Your task to perform on an android device: View the shopping cart on ebay.com. Search for razer kraken on ebay.com, select the first entry, add it to the cart, then select checkout. Image 0: 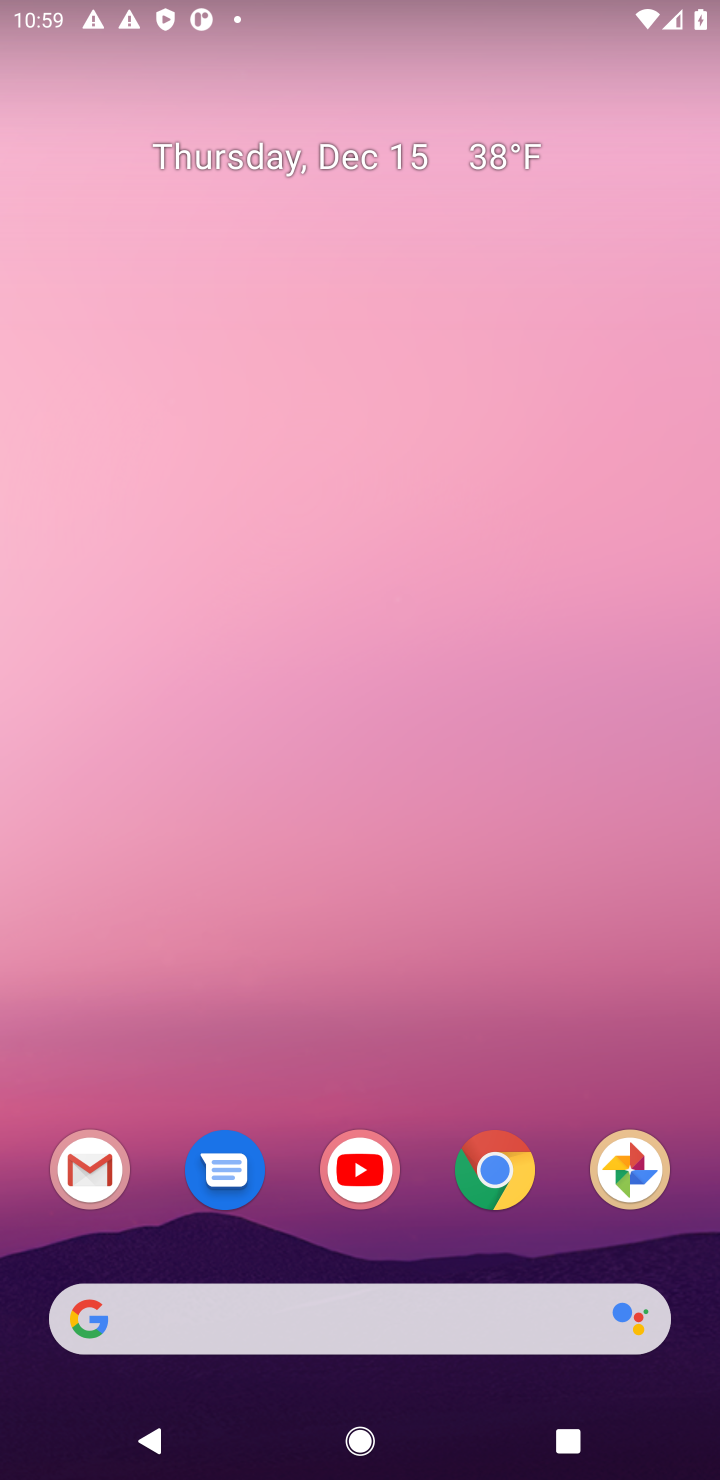
Step 0: click (494, 1170)
Your task to perform on an android device: View the shopping cart on ebay.com. Search for razer kraken on ebay.com, select the first entry, add it to the cart, then select checkout. Image 1: 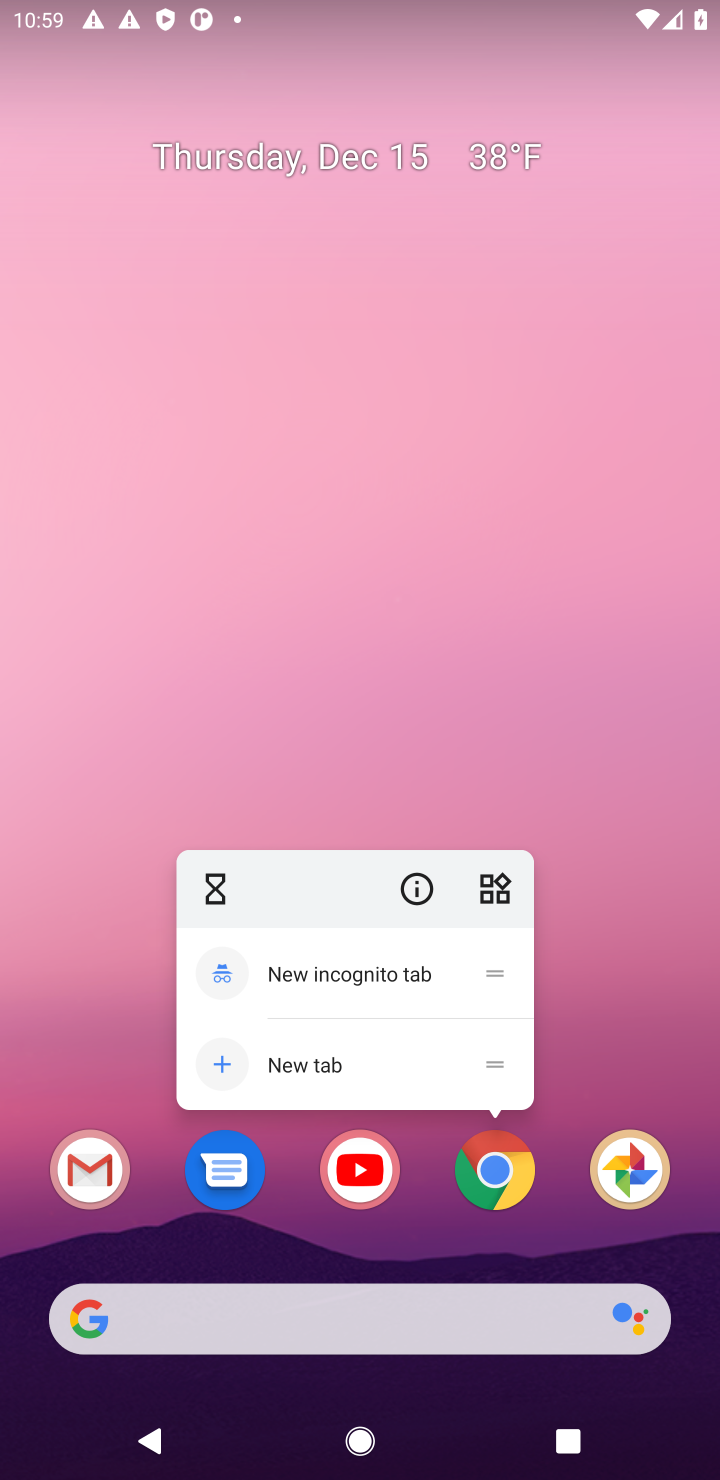
Step 1: click (492, 1176)
Your task to perform on an android device: View the shopping cart on ebay.com. Search for razer kraken on ebay.com, select the first entry, add it to the cart, then select checkout. Image 2: 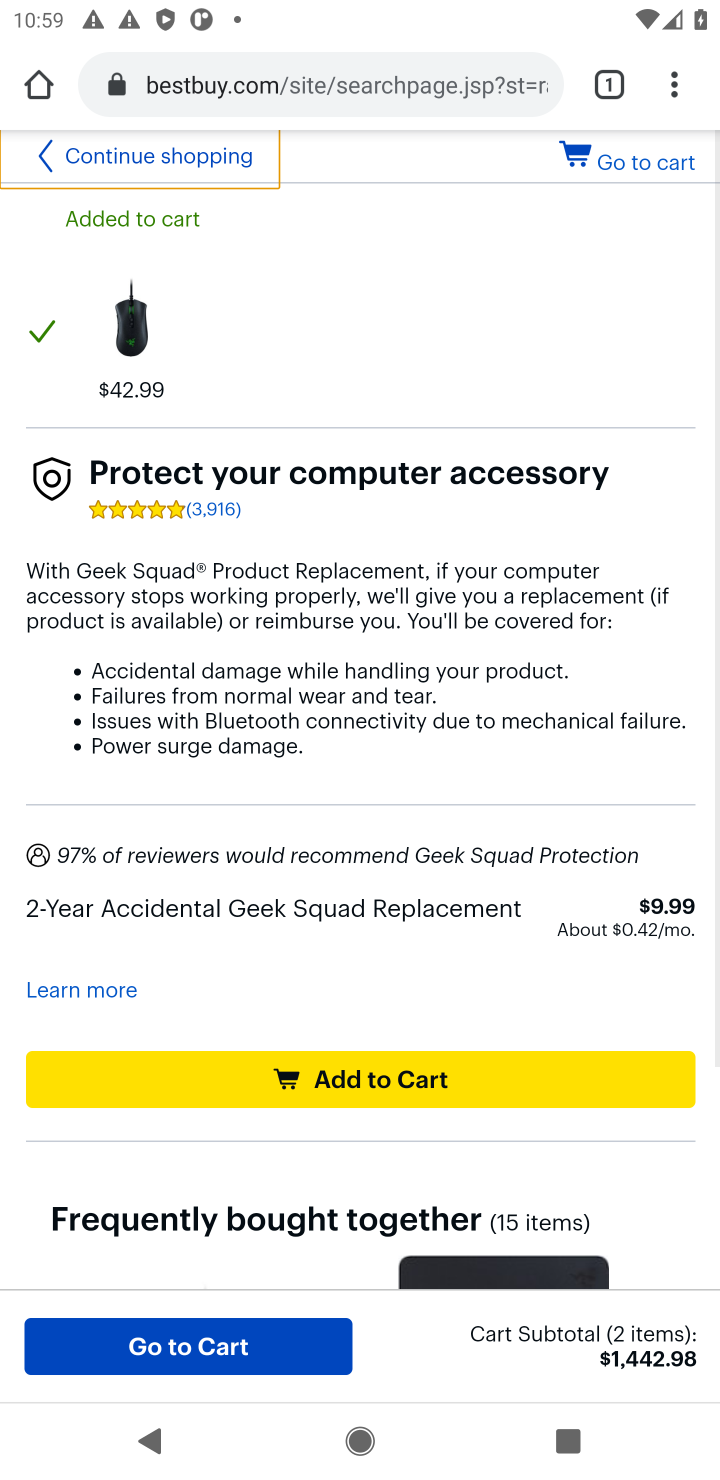
Step 2: click (293, 90)
Your task to perform on an android device: View the shopping cart on ebay.com. Search for razer kraken on ebay.com, select the first entry, add it to the cart, then select checkout. Image 3: 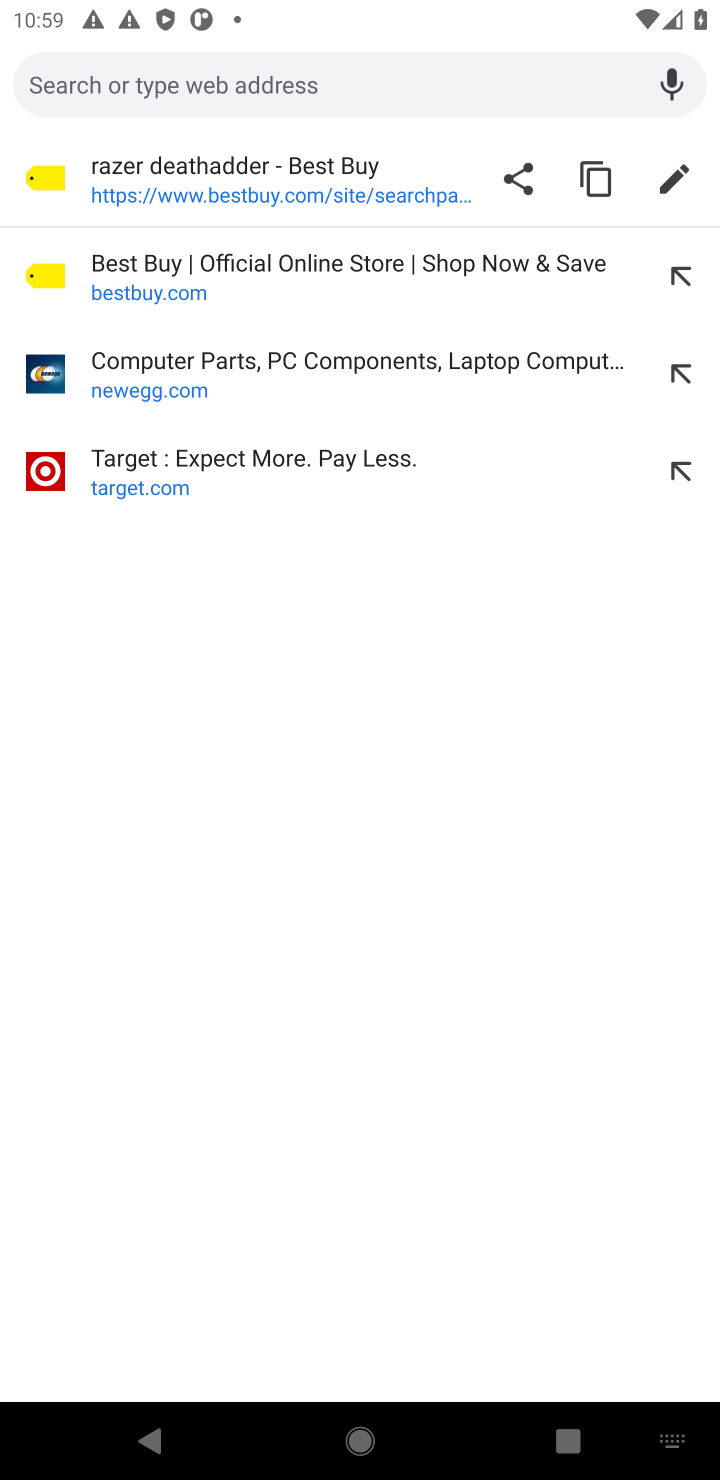
Step 3: type "ebay.com"
Your task to perform on an android device: View the shopping cart on ebay.com. Search for razer kraken on ebay.com, select the first entry, add it to the cart, then select checkout. Image 4: 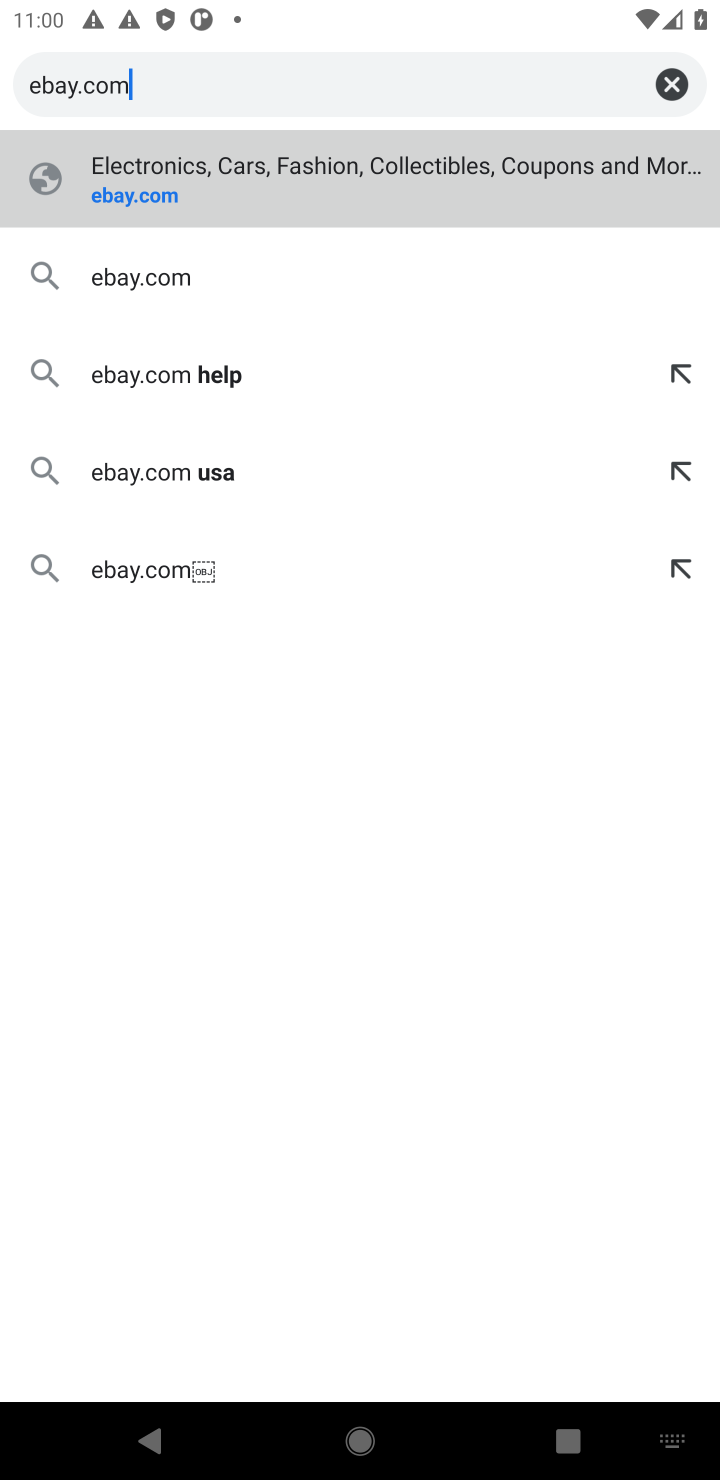
Step 4: click (133, 196)
Your task to perform on an android device: View the shopping cart on ebay.com. Search for razer kraken on ebay.com, select the first entry, add it to the cart, then select checkout. Image 5: 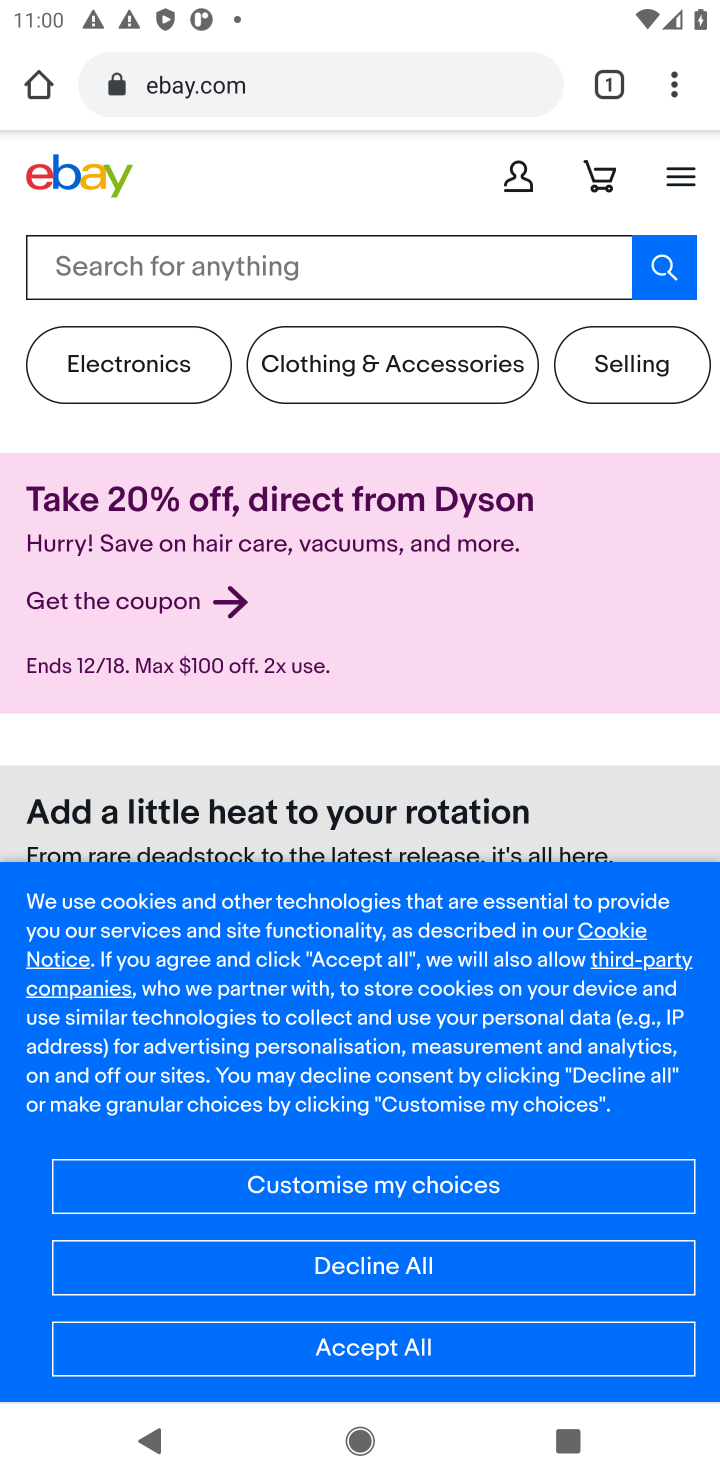
Step 5: click (596, 177)
Your task to perform on an android device: View the shopping cart on ebay.com. Search for razer kraken on ebay.com, select the first entry, add it to the cart, then select checkout. Image 6: 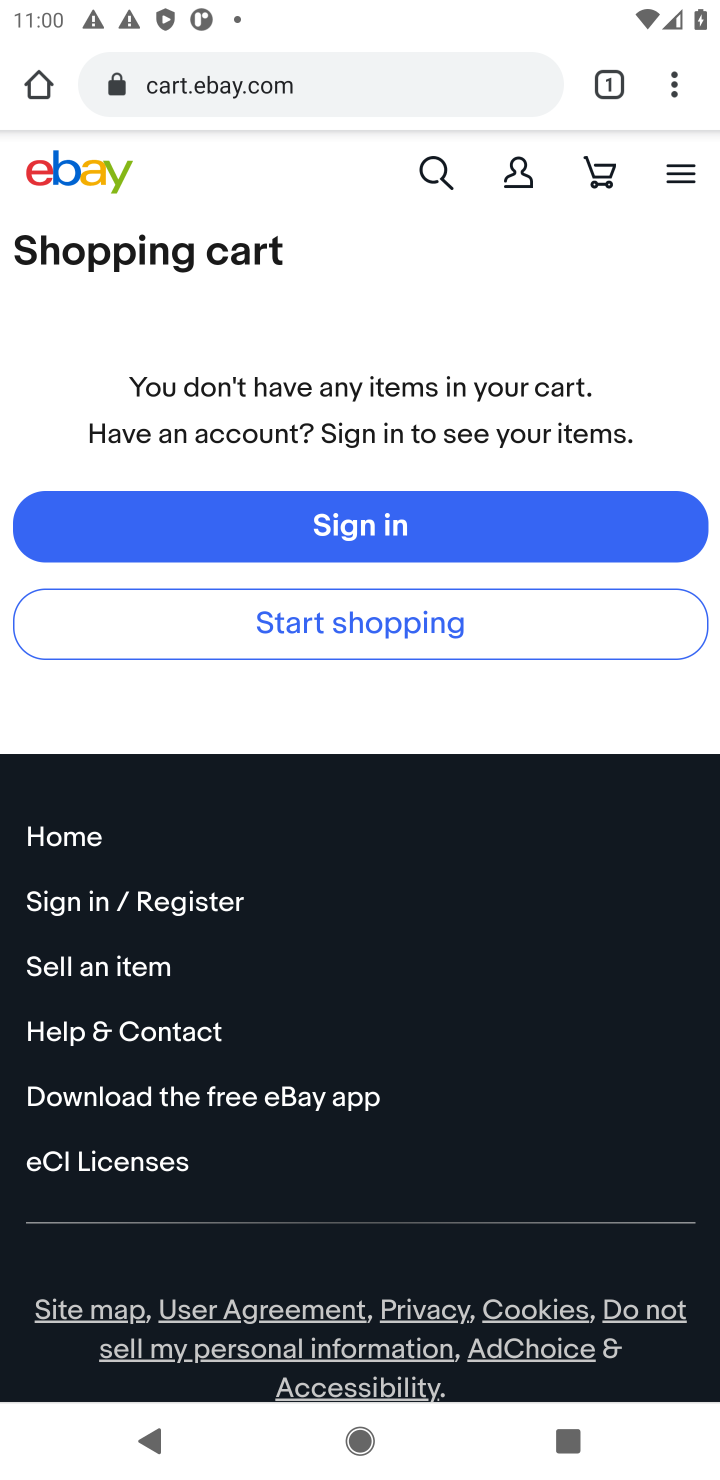
Step 6: click (437, 174)
Your task to perform on an android device: View the shopping cart on ebay.com. Search for razer kraken on ebay.com, select the first entry, add it to the cart, then select checkout. Image 7: 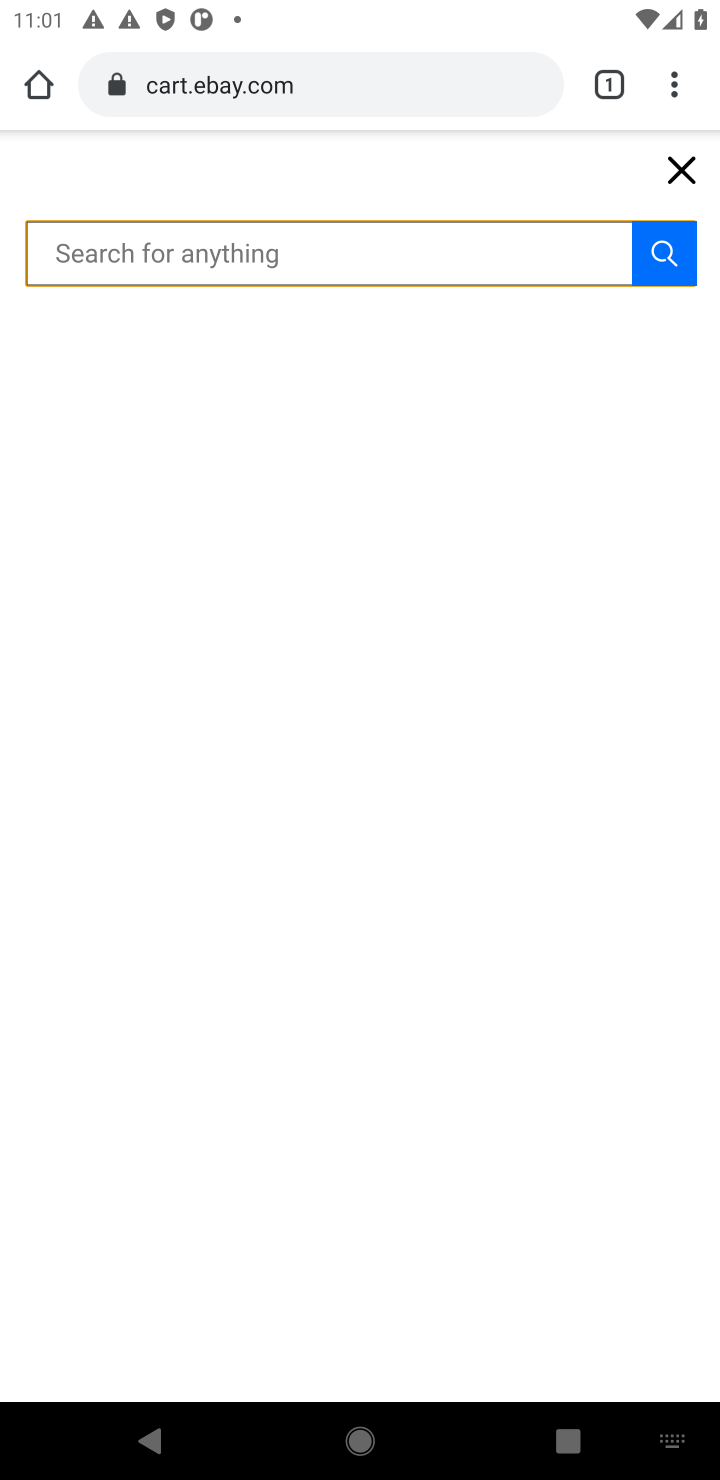
Step 7: type "razer kraken"
Your task to perform on an android device: View the shopping cart on ebay.com. Search for razer kraken on ebay.com, select the first entry, add it to the cart, then select checkout. Image 8: 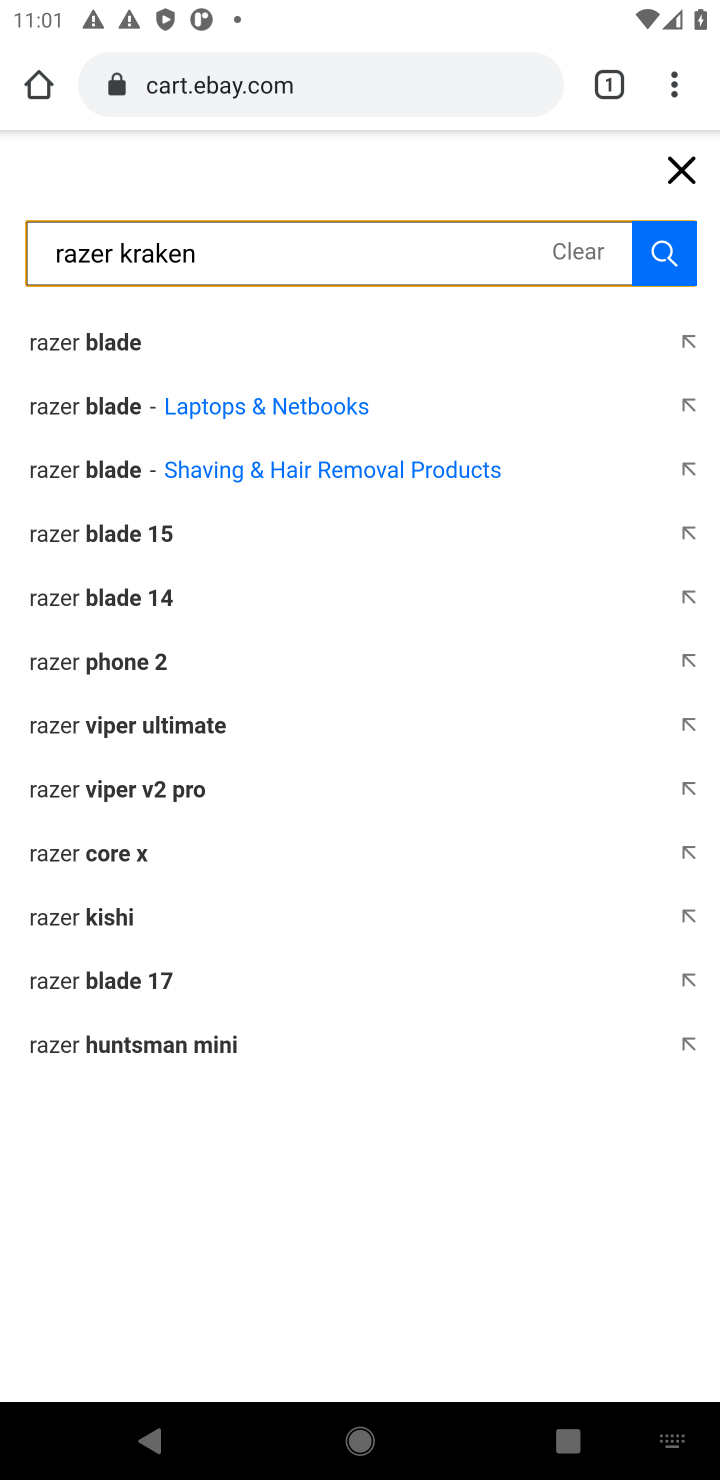
Step 8: click (665, 271)
Your task to perform on an android device: View the shopping cart on ebay.com. Search for razer kraken on ebay.com, select the first entry, add it to the cart, then select checkout. Image 9: 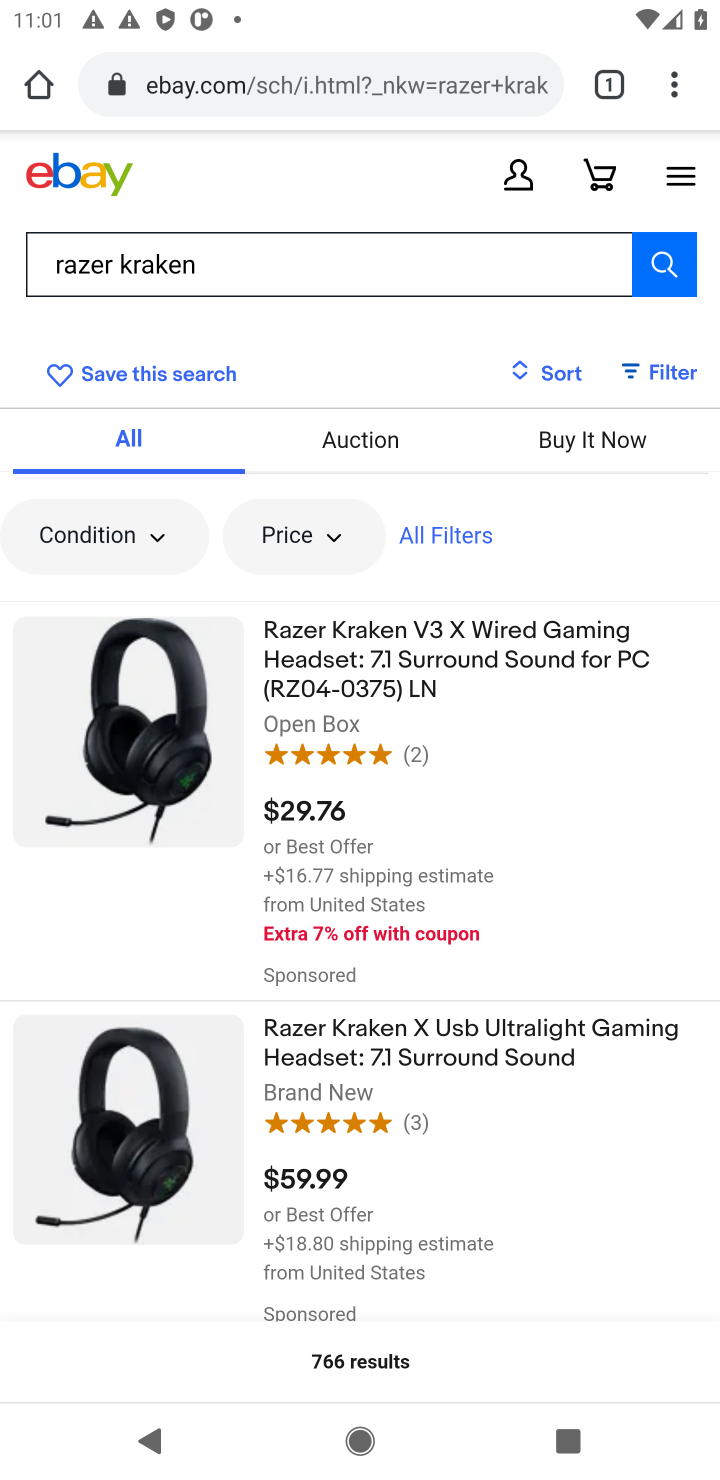
Step 9: click (328, 686)
Your task to perform on an android device: View the shopping cart on ebay.com. Search for razer kraken on ebay.com, select the first entry, add it to the cart, then select checkout. Image 10: 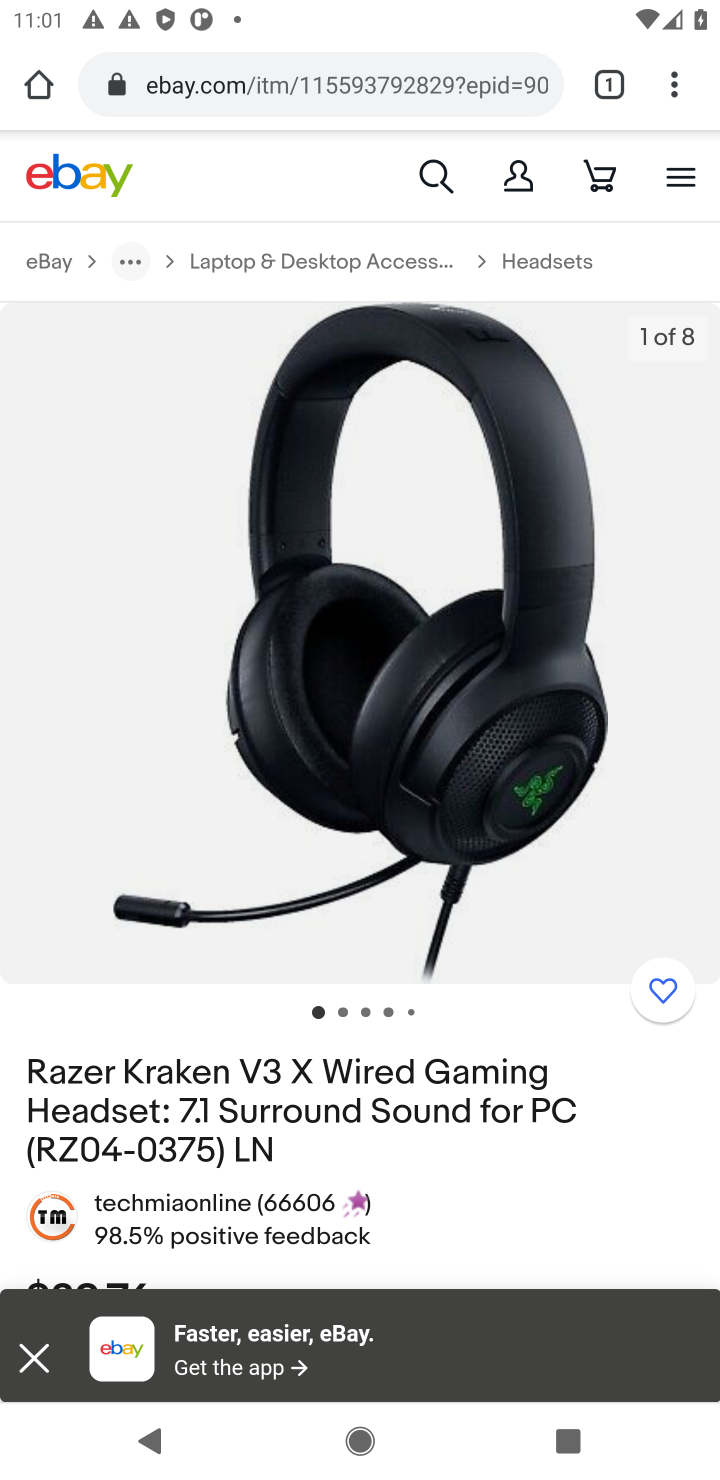
Step 10: drag from (349, 1020) to (380, 588)
Your task to perform on an android device: View the shopping cart on ebay.com. Search for razer kraken on ebay.com, select the first entry, add it to the cart, then select checkout. Image 11: 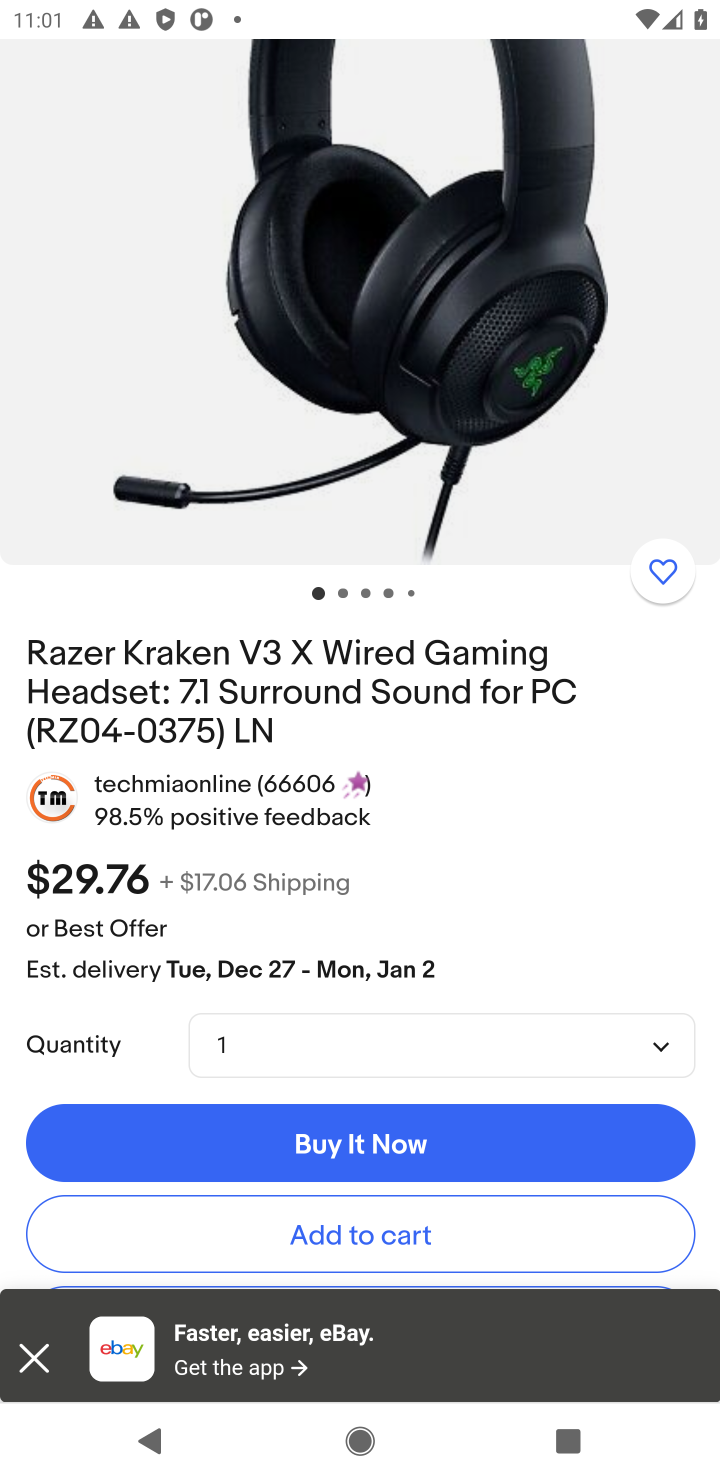
Step 11: click (327, 1230)
Your task to perform on an android device: View the shopping cart on ebay.com. Search for razer kraken on ebay.com, select the first entry, add it to the cart, then select checkout. Image 12: 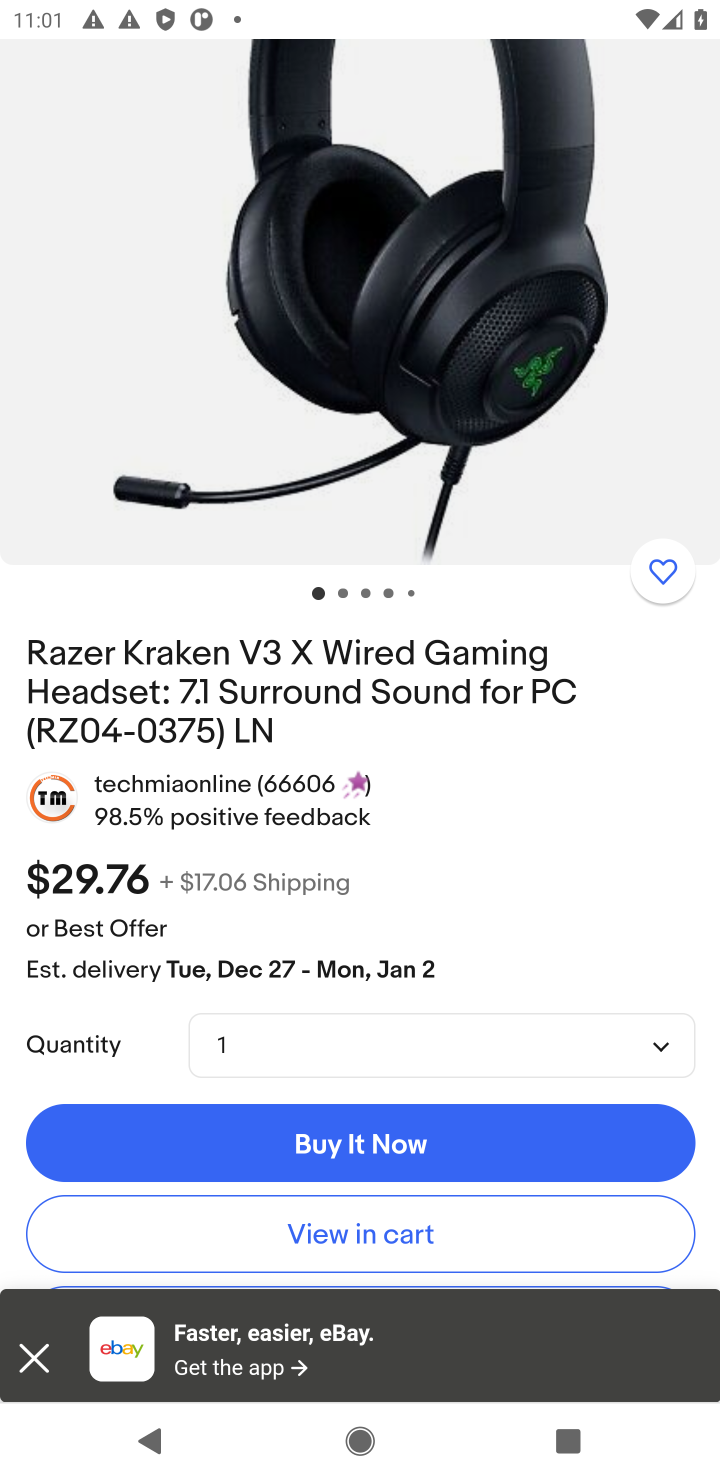
Step 12: click (327, 1230)
Your task to perform on an android device: View the shopping cart on ebay.com. Search for razer kraken on ebay.com, select the first entry, add it to the cart, then select checkout. Image 13: 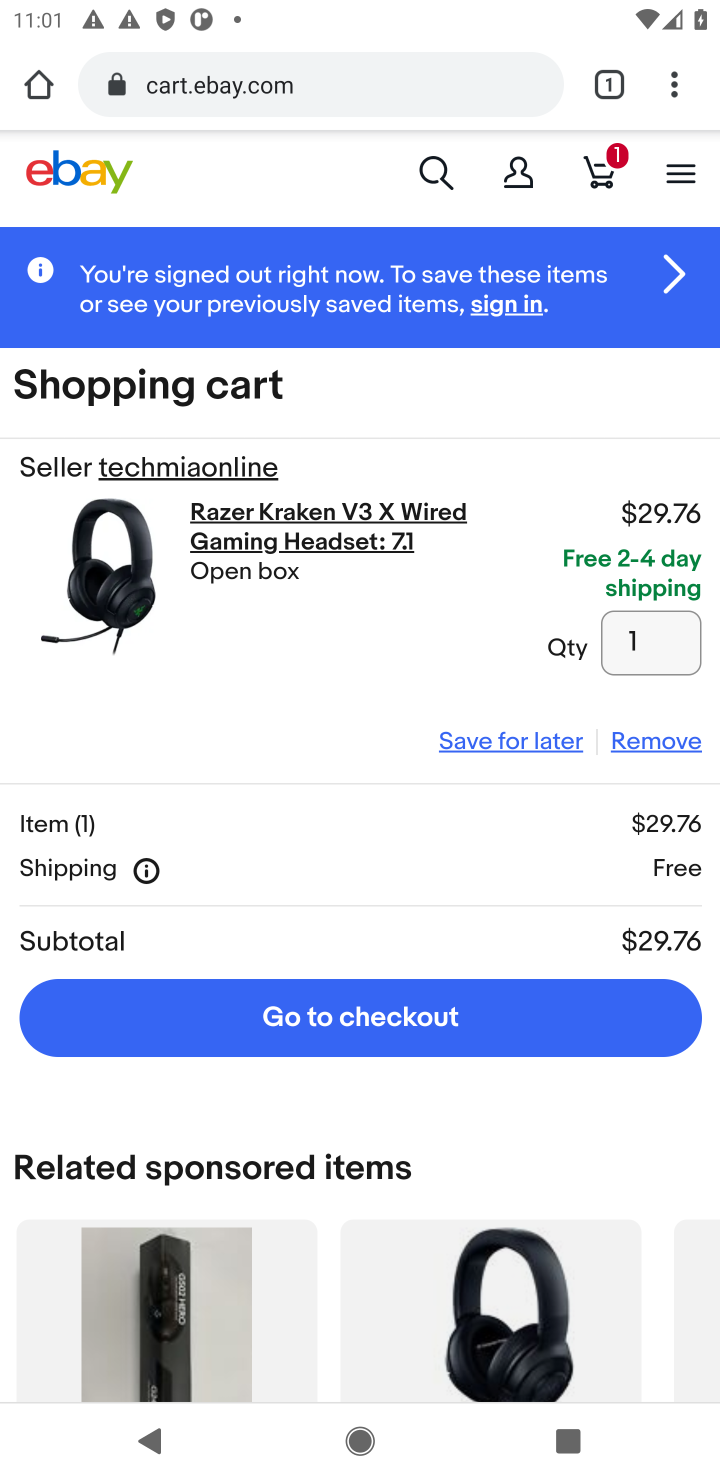
Step 13: click (343, 1022)
Your task to perform on an android device: View the shopping cart on ebay.com. Search for razer kraken on ebay.com, select the first entry, add it to the cart, then select checkout. Image 14: 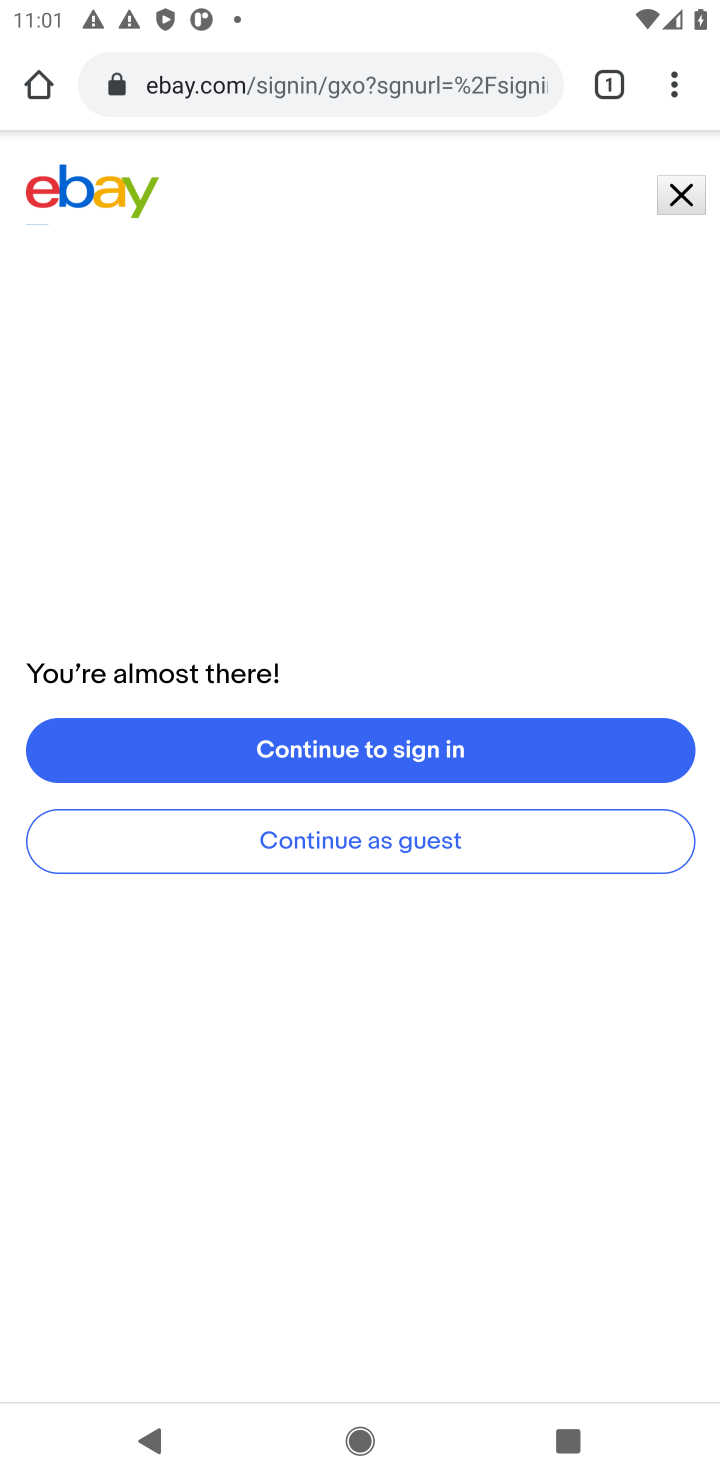
Step 14: task complete